Your task to perform on an android device: Clear the shopping cart on amazon. Add "macbook pro" to the cart on amazon, then select checkout. Image 0: 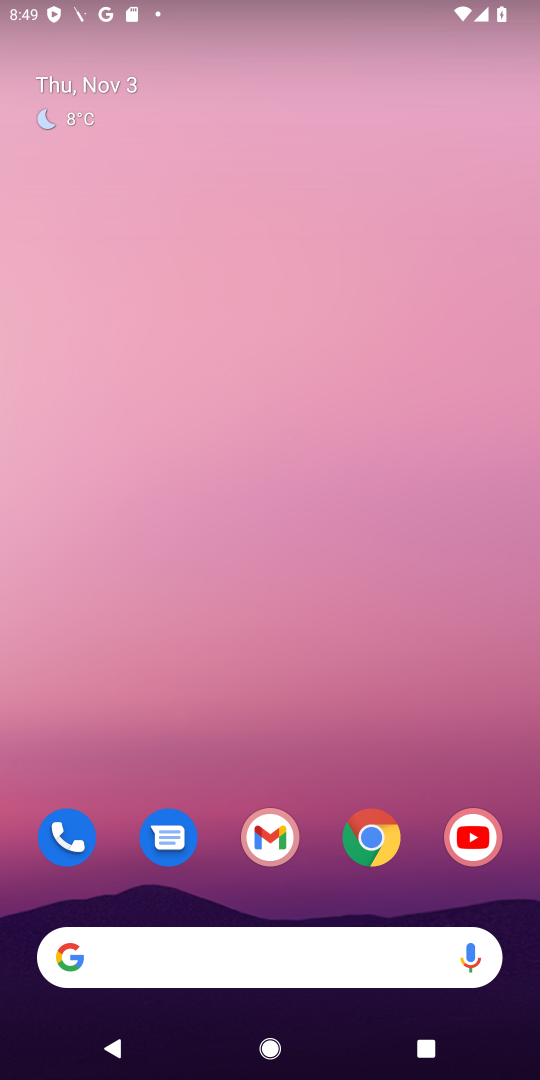
Step 0: click (372, 838)
Your task to perform on an android device: Clear the shopping cart on amazon. Add "macbook pro" to the cart on amazon, then select checkout. Image 1: 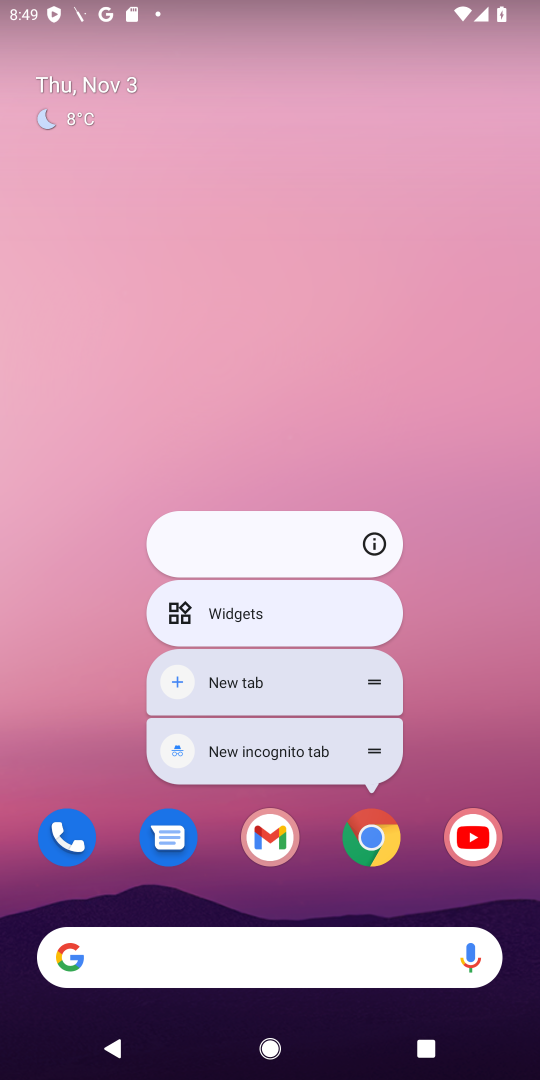
Step 1: click (361, 853)
Your task to perform on an android device: Clear the shopping cart on amazon. Add "macbook pro" to the cart on amazon, then select checkout. Image 2: 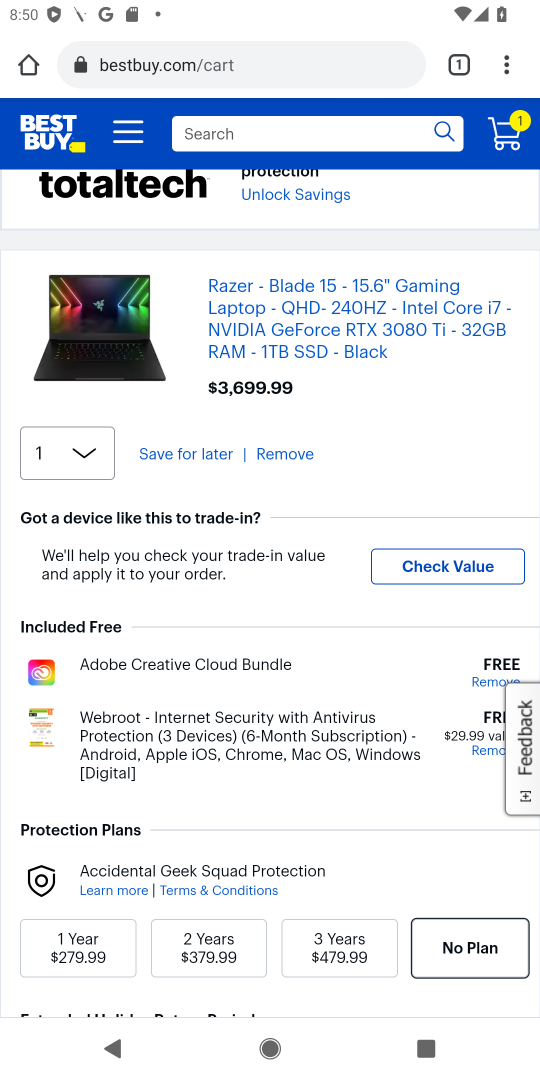
Step 2: click (258, 67)
Your task to perform on an android device: Clear the shopping cart on amazon. Add "macbook pro" to the cart on amazon, then select checkout. Image 3: 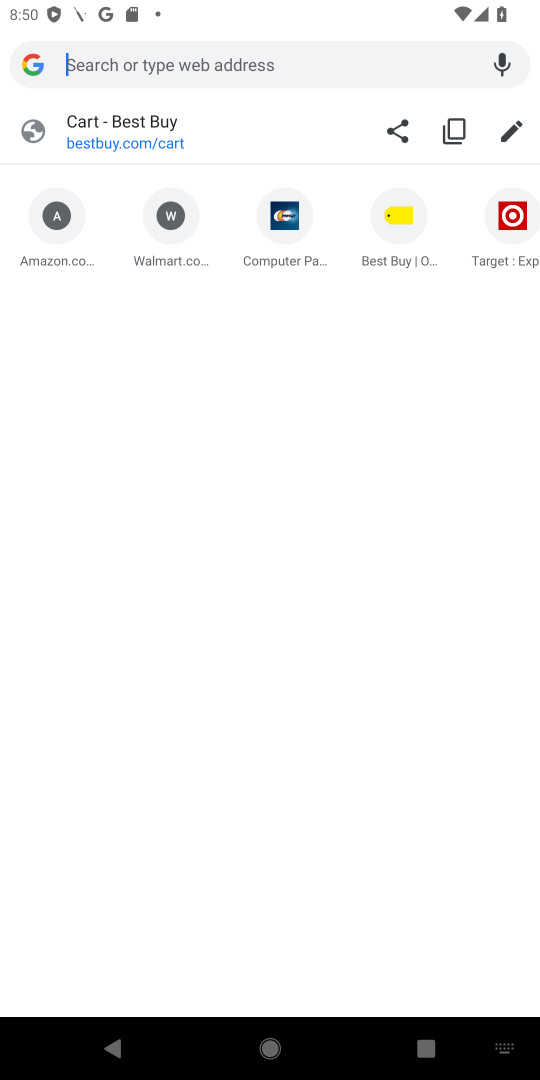
Step 3: click (46, 248)
Your task to perform on an android device: Clear the shopping cart on amazon. Add "macbook pro" to the cart on amazon, then select checkout. Image 4: 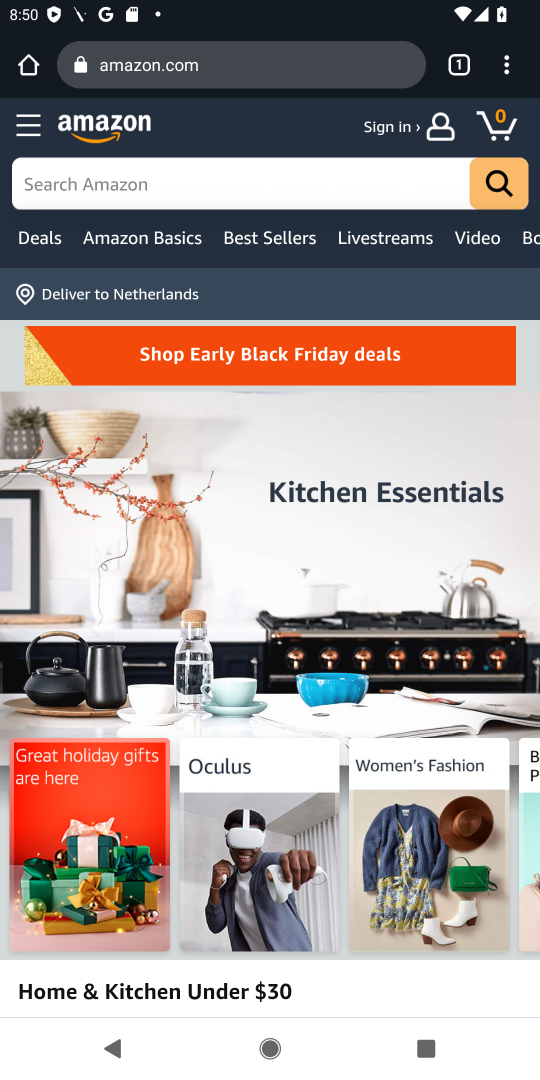
Step 4: click (101, 183)
Your task to perform on an android device: Clear the shopping cart on amazon. Add "macbook pro" to the cart on amazon, then select checkout. Image 5: 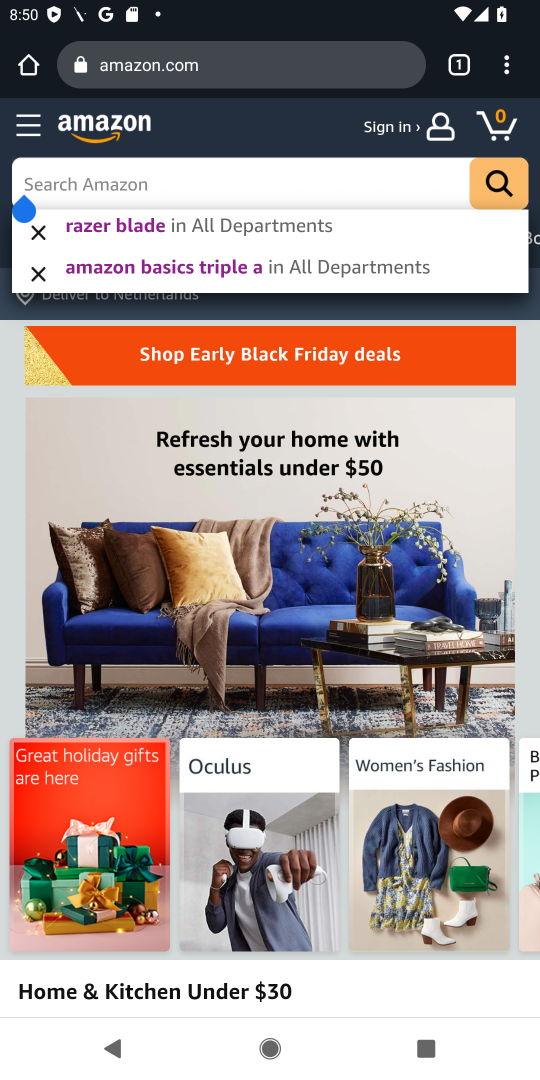
Step 5: type "macbook pro"
Your task to perform on an android device: Clear the shopping cart on amazon. Add "macbook pro" to the cart on amazon, then select checkout. Image 6: 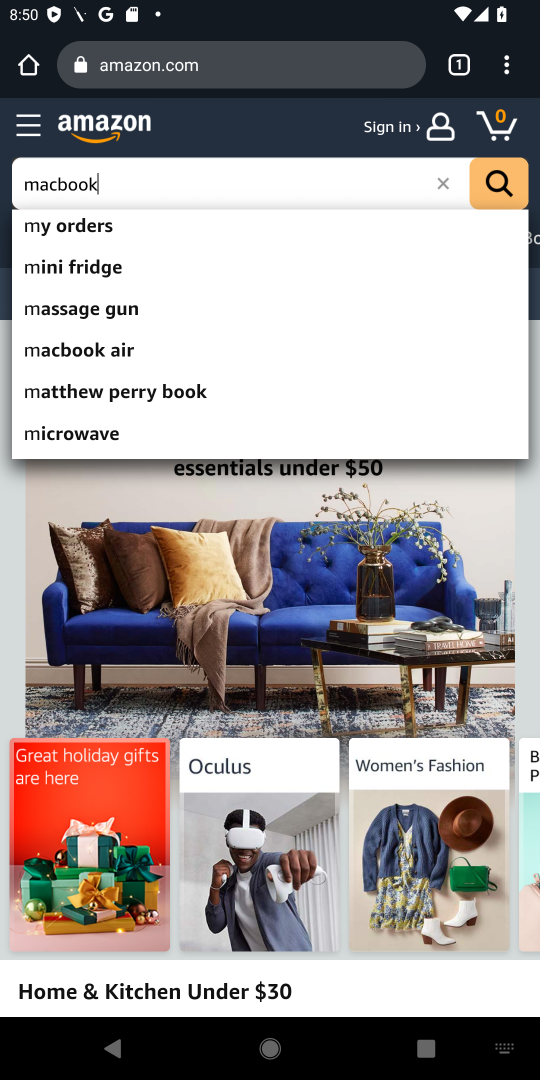
Step 6: press enter
Your task to perform on an android device: Clear the shopping cart on amazon. Add "macbook pro" to the cart on amazon, then select checkout. Image 7: 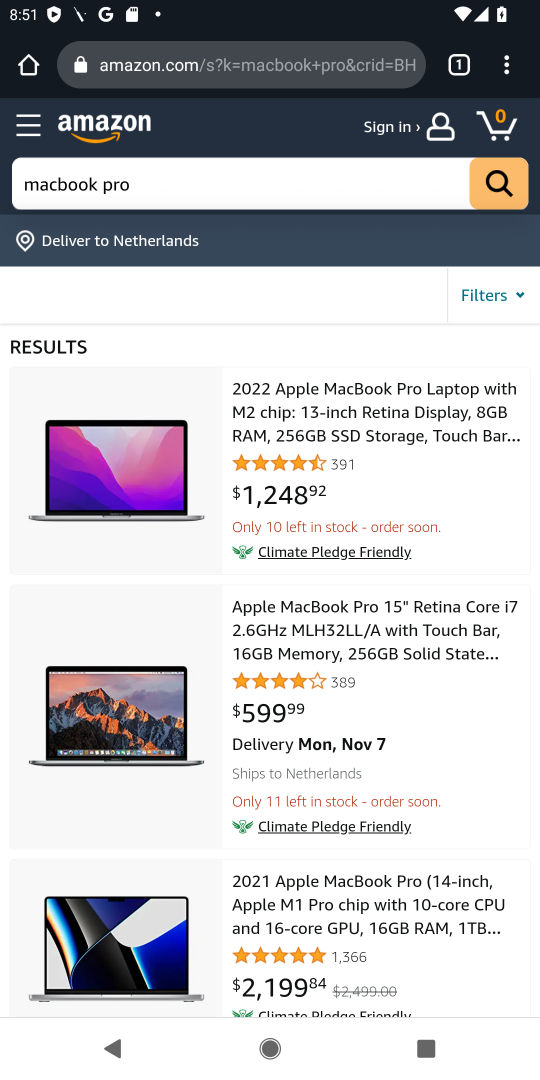
Step 7: click (328, 422)
Your task to perform on an android device: Clear the shopping cart on amazon. Add "macbook pro" to the cart on amazon, then select checkout. Image 8: 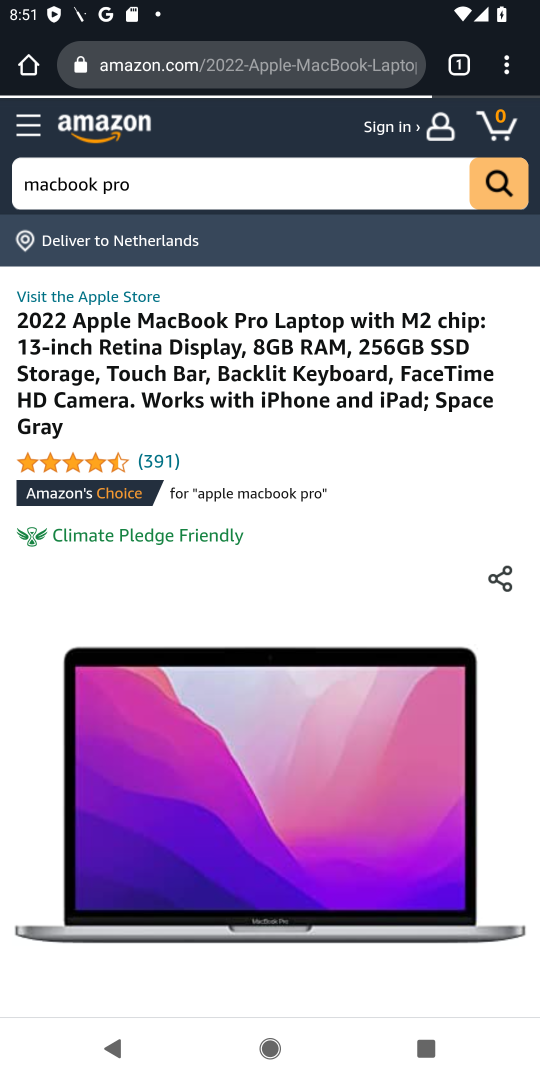
Step 8: drag from (163, 804) to (498, 71)
Your task to perform on an android device: Clear the shopping cart on amazon. Add "macbook pro" to the cart on amazon, then select checkout. Image 9: 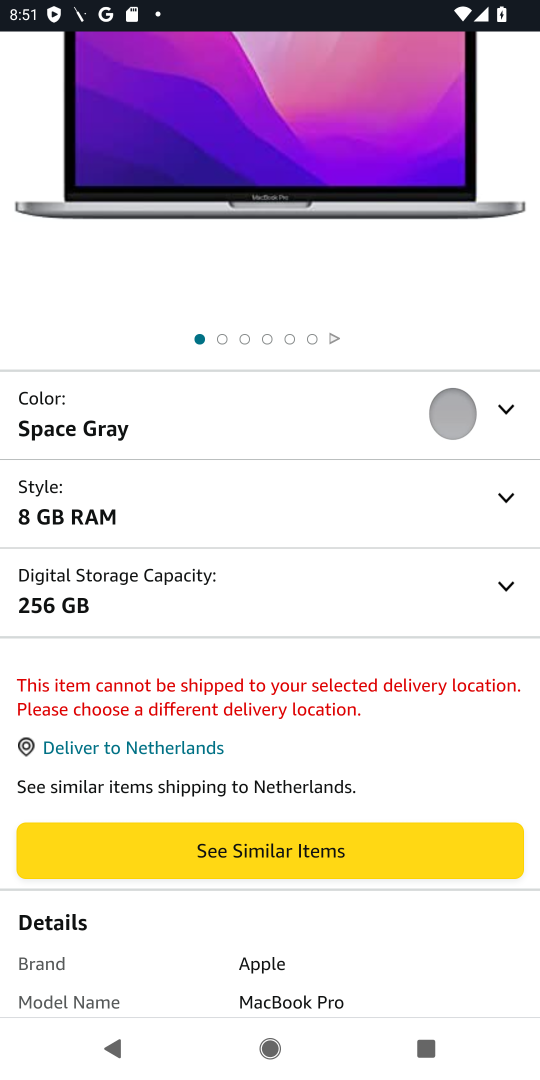
Step 9: drag from (314, 441) to (96, 952)
Your task to perform on an android device: Clear the shopping cart on amazon. Add "macbook pro" to the cart on amazon, then select checkout. Image 10: 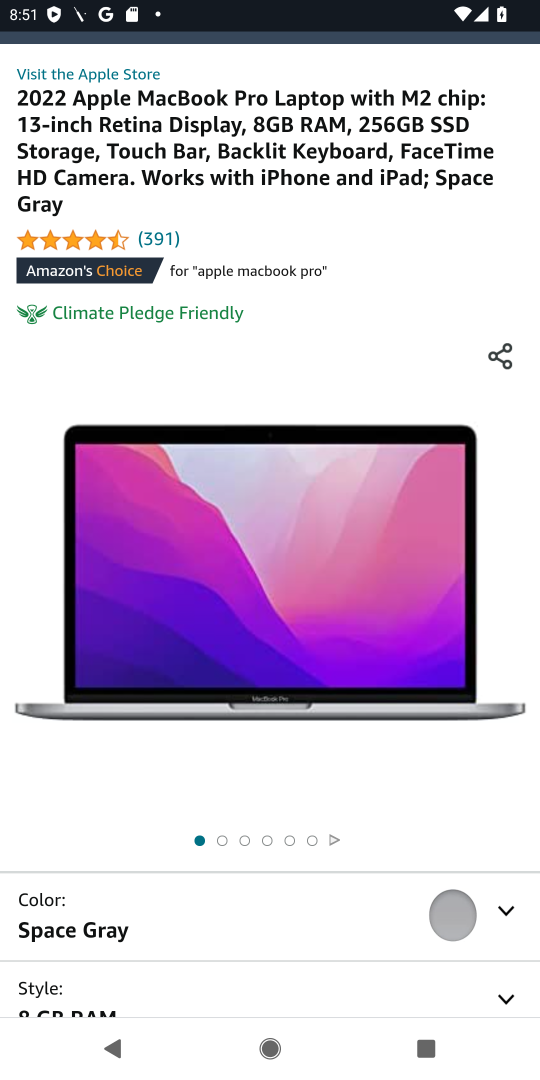
Step 10: press back button
Your task to perform on an android device: Clear the shopping cart on amazon. Add "macbook pro" to the cart on amazon, then select checkout. Image 11: 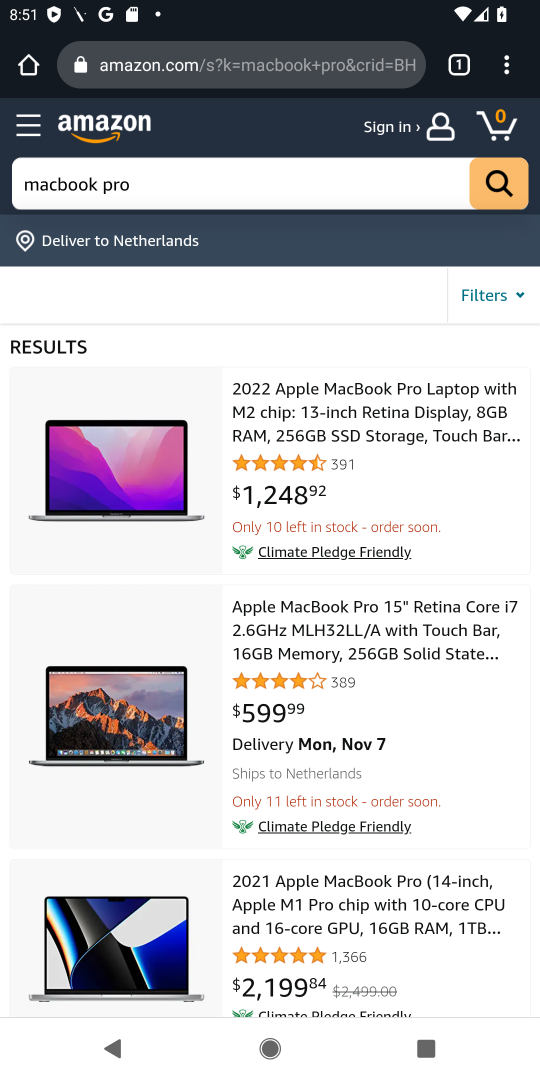
Step 11: click (336, 619)
Your task to perform on an android device: Clear the shopping cart on amazon. Add "macbook pro" to the cart on amazon, then select checkout. Image 12: 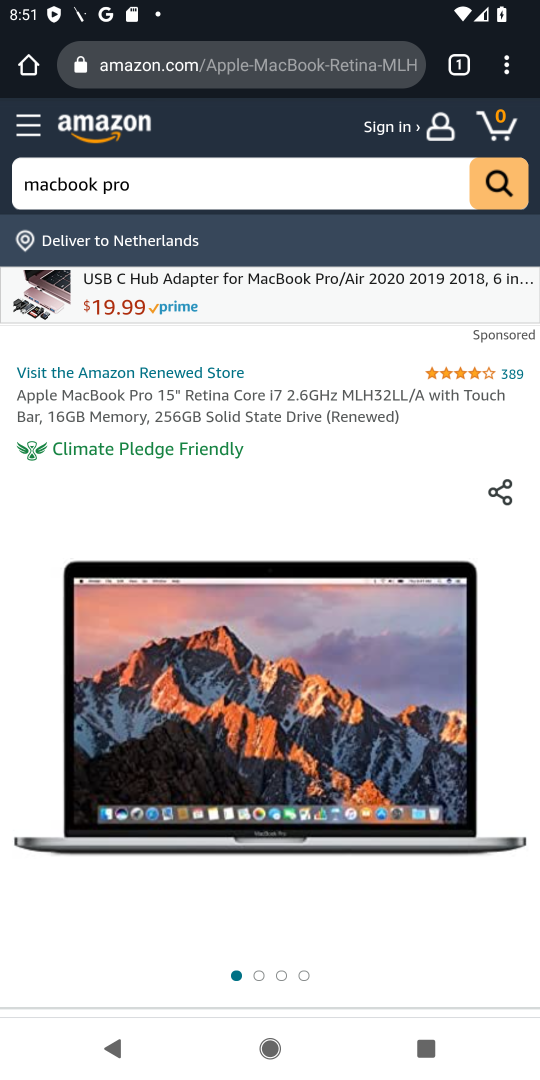
Step 12: drag from (83, 882) to (358, 255)
Your task to perform on an android device: Clear the shopping cart on amazon. Add "macbook pro" to the cart on amazon, then select checkout. Image 13: 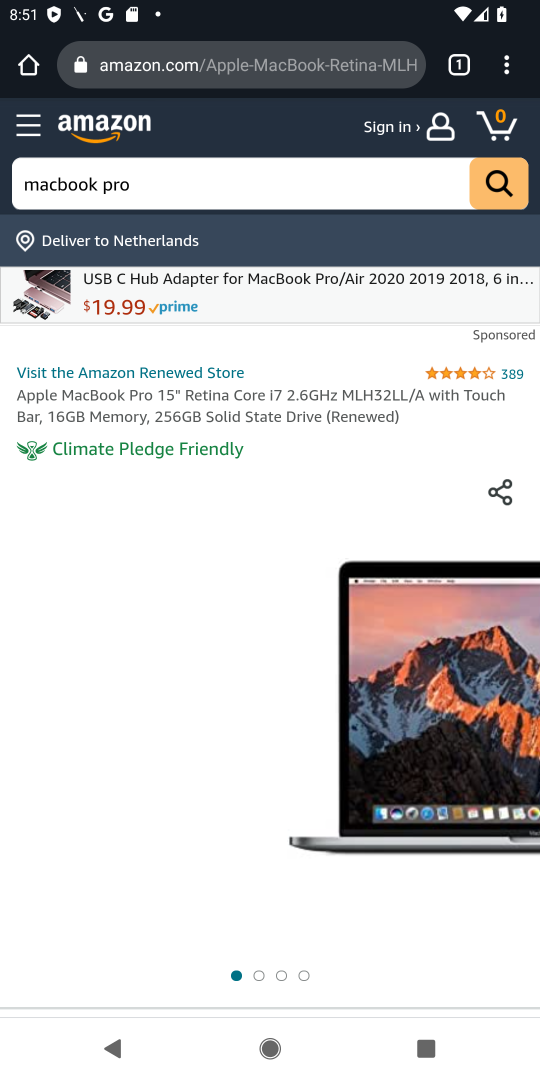
Step 13: drag from (454, 926) to (430, 350)
Your task to perform on an android device: Clear the shopping cart on amazon. Add "macbook pro" to the cart on amazon, then select checkout. Image 14: 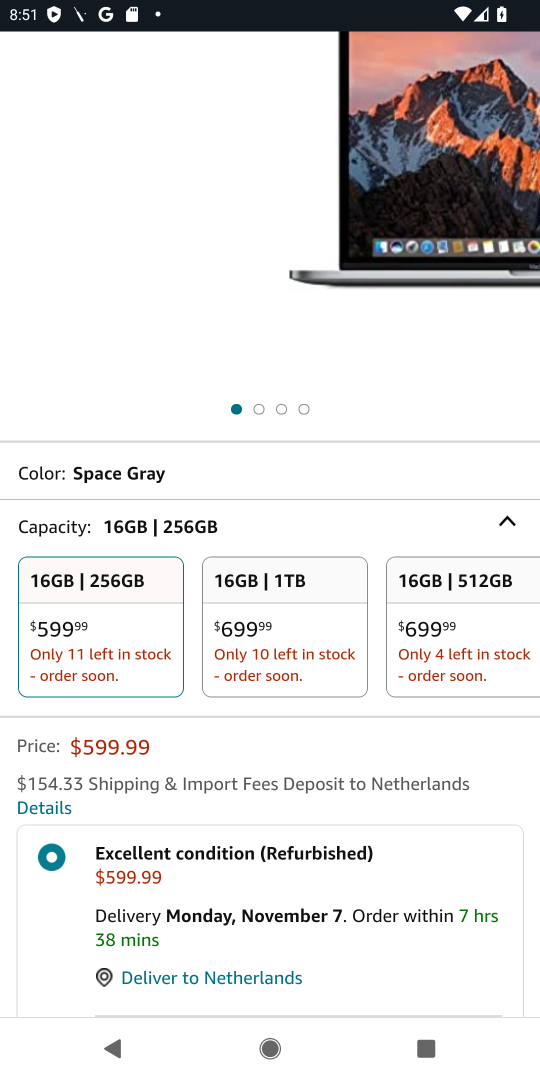
Step 14: drag from (212, 884) to (219, 299)
Your task to perform on an android device: Clear the shopping cart on amazon. Add "macbook pro" to the cart on amazon, then select checkout. Image 15: 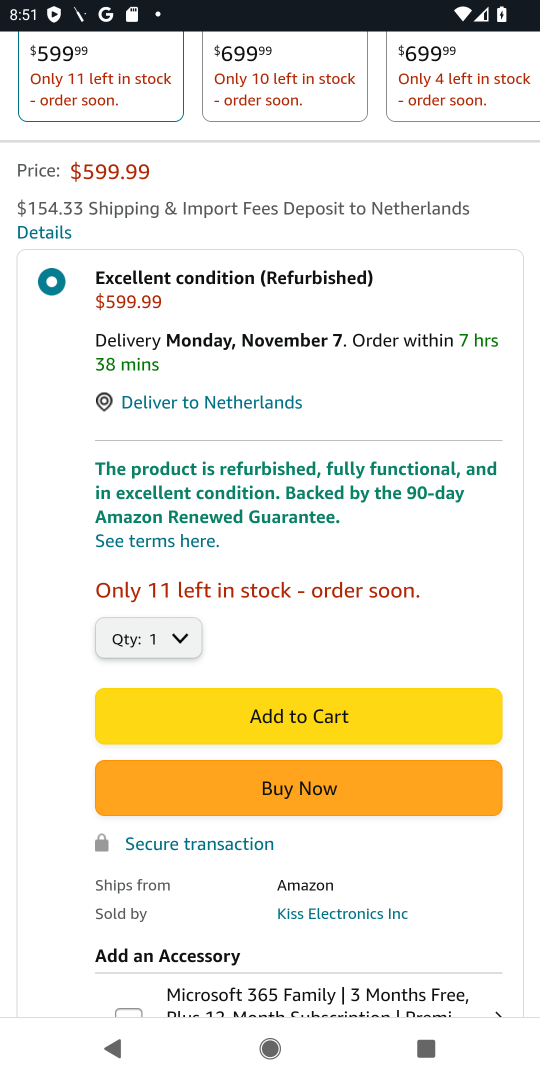
Step 15: click (308, 709)
Your task to perform on an android device: Clear the shopping cart on amazon. Add "macbook pro" to the cart on amazon, then select checkout. Image 16: 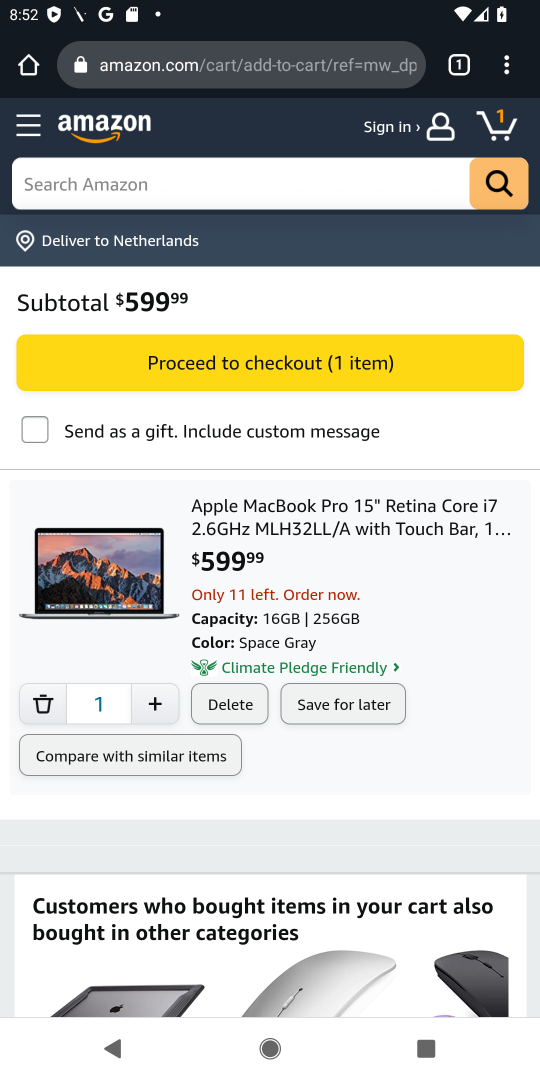
Step 16: drag from (309, 804) to (311, 700)
Your task to perform on an android device: Clear the shopping cart on amazon. Add "macbook pro" to the cart on amazon, then select checkout. Image 17: 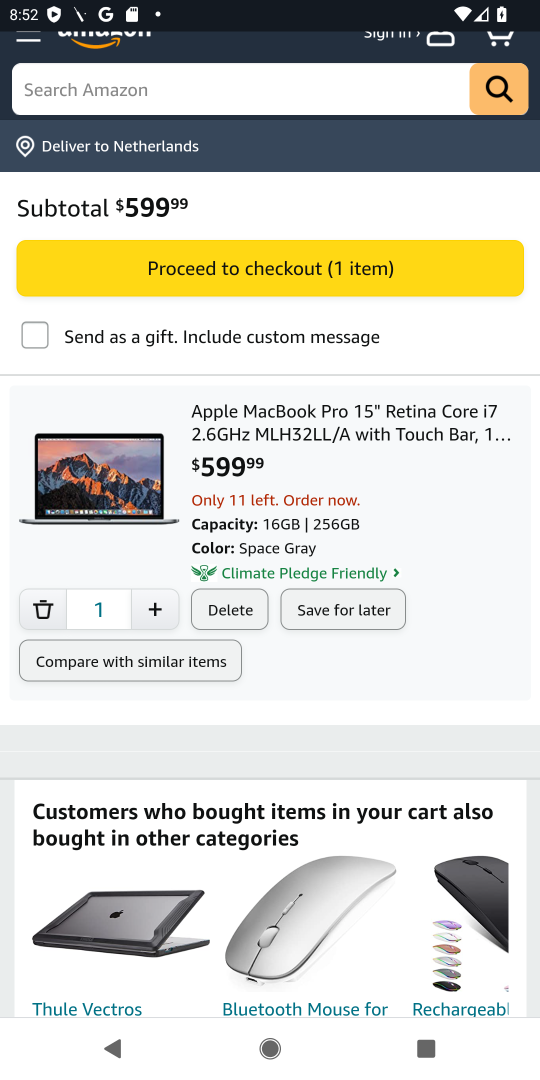
Step 17: click (273, 264)
Your task to perform on an android device: Clear the shopping cart on amazon. Add "macbook pro" to the cart on amazon, then select checkout. Image 18: 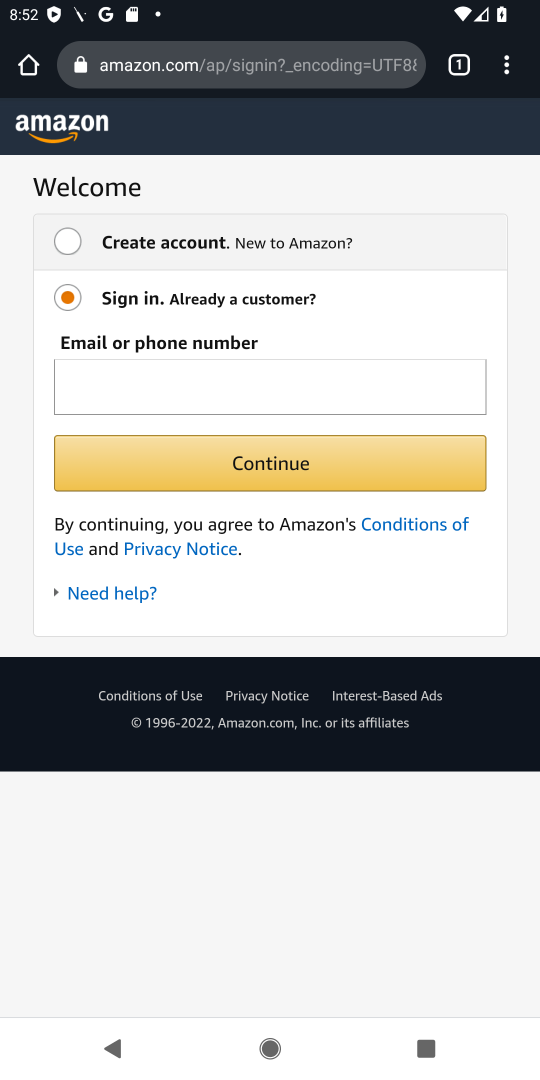
Step 18: task complete